Your task to perform on an android device: Go to eBay Image 0: 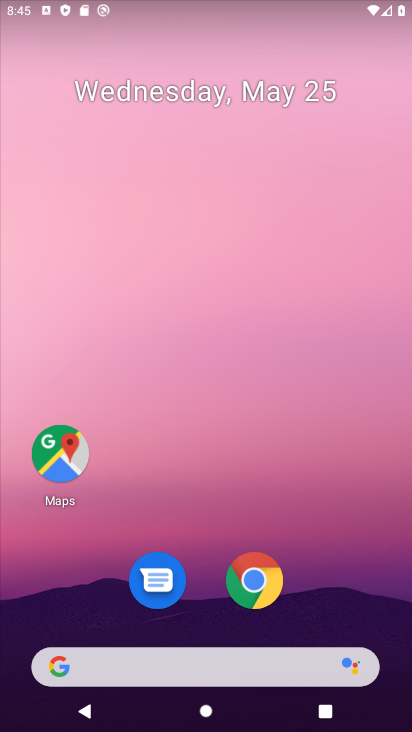
Step 0: click (267, 577)
Your task to perform on an android device: Go to eBay Image 1: 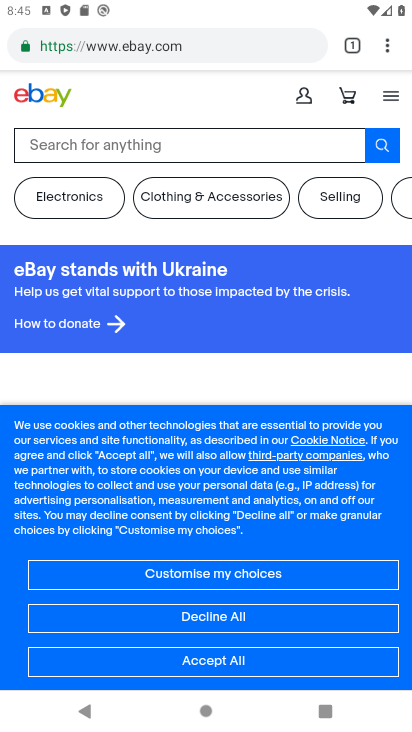
Step 1: task complete